Your task to perform on an android device: Open the web browser Image 0: 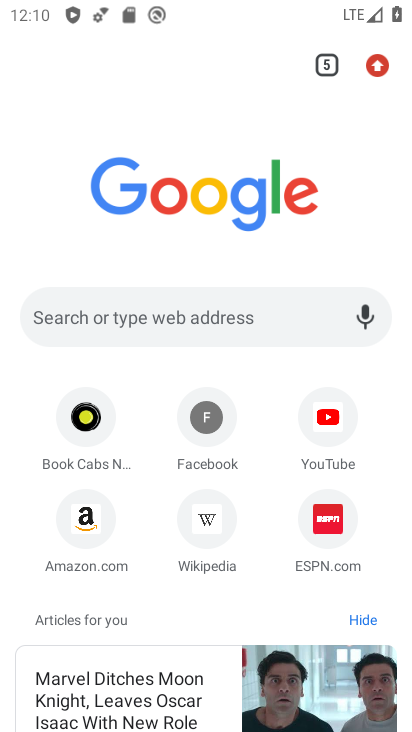
Step 0: task complete